Your task to perform on an android device: turn off improve location accuracy Image 0: 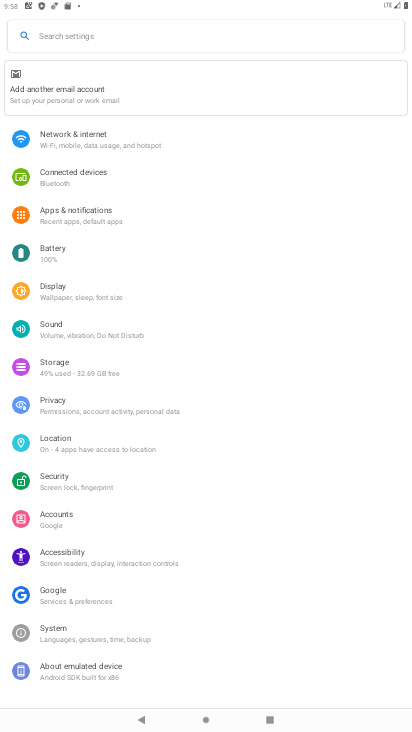
Step 0: click (132, 445)
Your task to perform on an android device: turn off improve location accuracy Image 1: 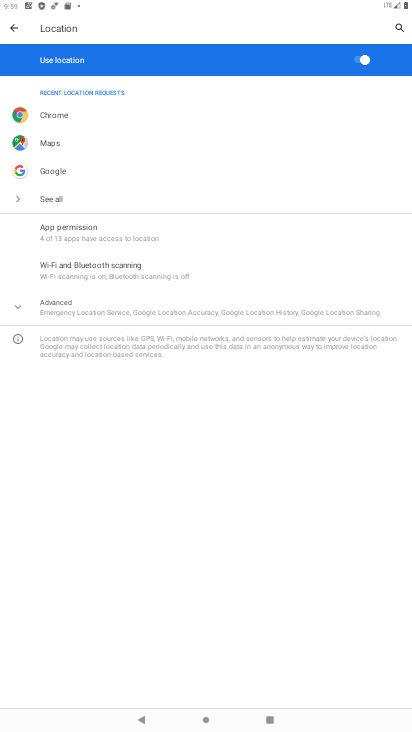
Step 1: click (170, 308)
Your task to perform on an android device: turn off improve location accuracy Image 2: 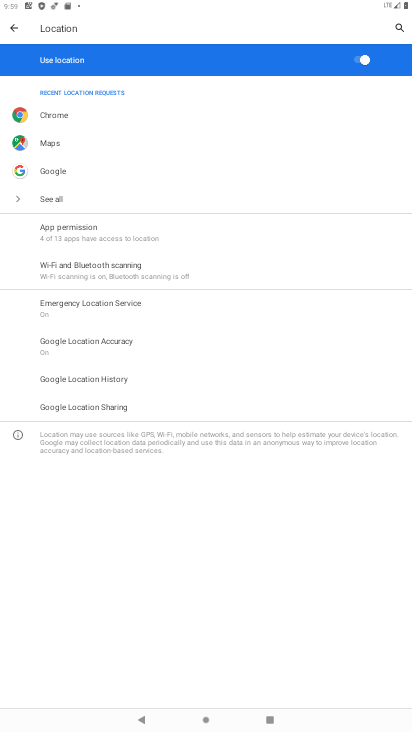
Step 2: click (133, 338)
Your task to perform on an android device: turn off improve location accuracy Image 3: 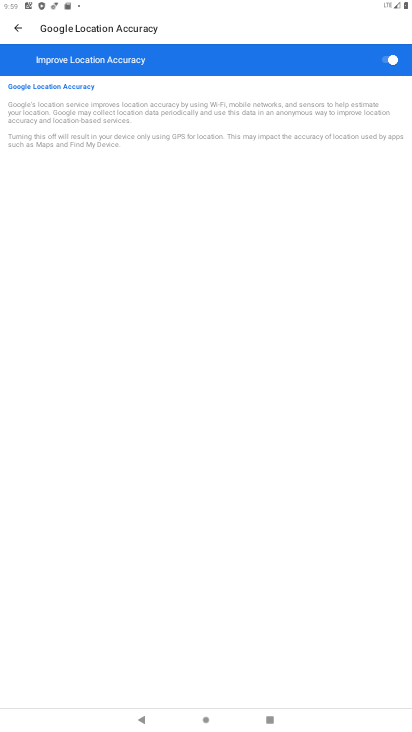
Step 3: click (388, 56)
Your task to perform on an android device: turn off improve location accuracy Image 4: 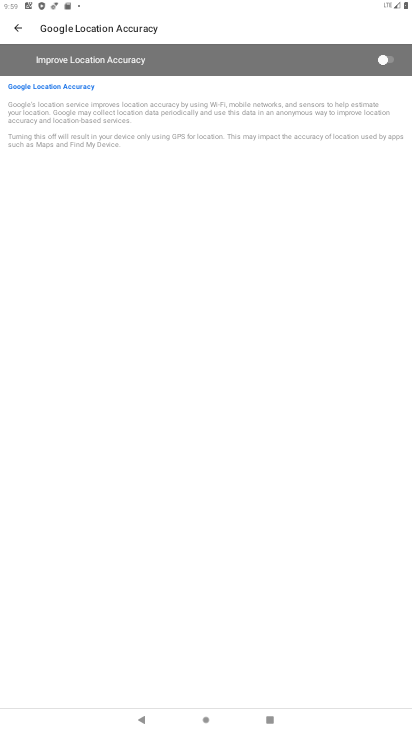
Step 4: task complete